Your task to perform on an android device: What's the weather today? Image 0: 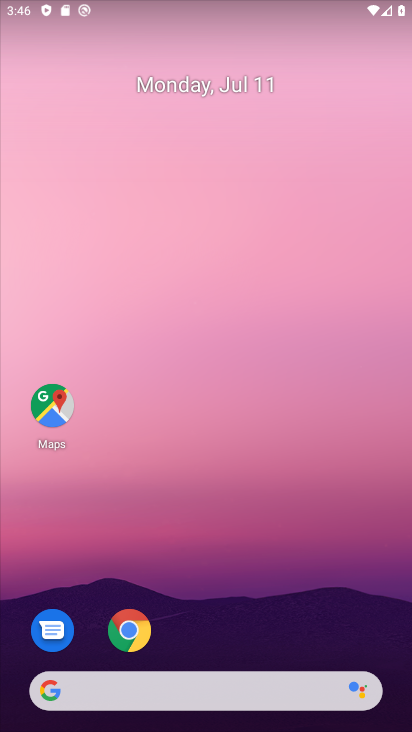
Step 0: drag from (154, 674) to (273, 64)
Your task to perform on an android device: What's the weather today? Image 1: 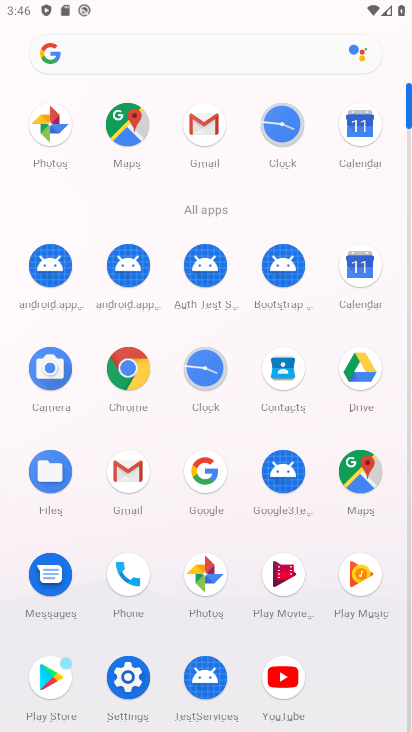
Step 1: click (196, 482)
Your task to perform on an android device: What's the weather today? Image 2: 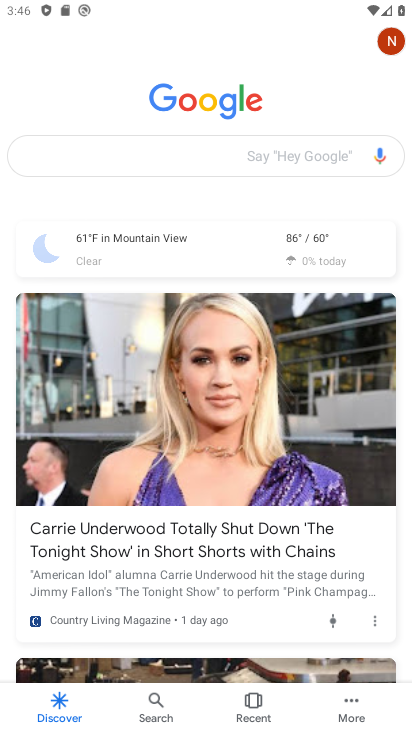
Step 2: click (178, 255)
Your task to perform on an android device: What's the weather today? Image 3: 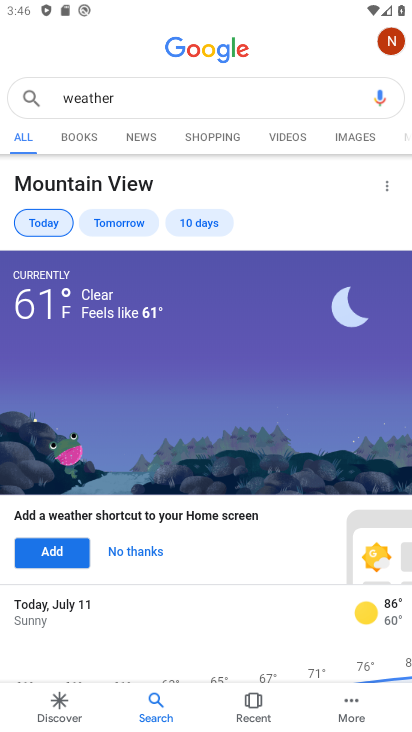
Step 3: task complete